Your task to perform on an android device: toggle airplane mode Image 0: 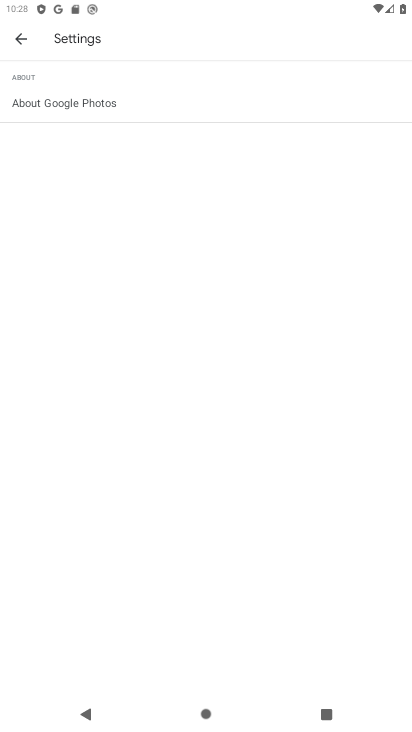
Step 0: press home button
Your task to perform on an android device: toggle airplane mode Image 1: 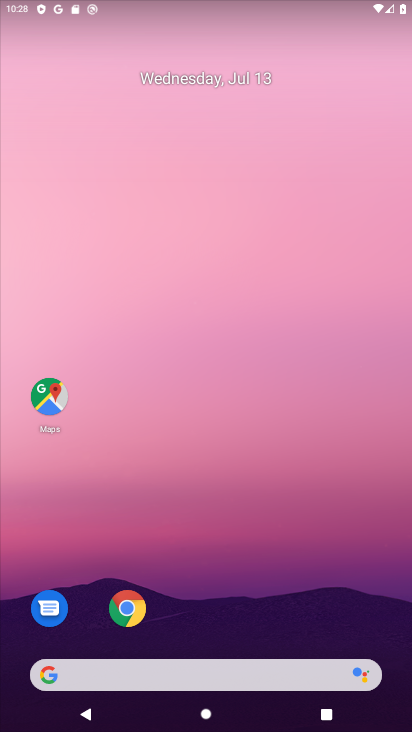
Step 1: drag from (271, 617) to (276, 166)
Your task to perform on an android device: toggle airplane mode Image 2: 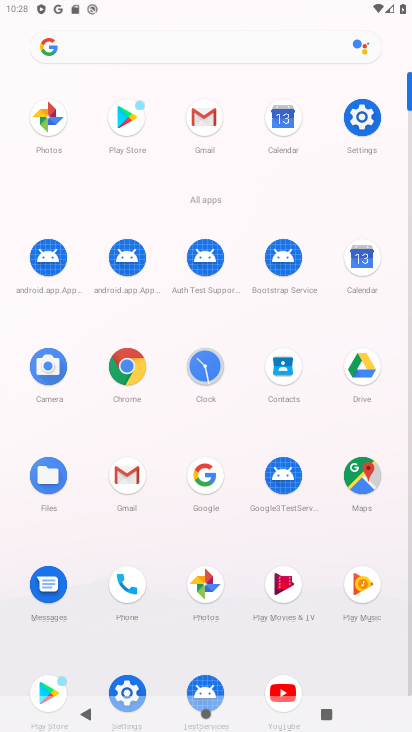
Step 2: click (364, 121)
Your task to perform on an android device: toggle airplane mode Image 3: 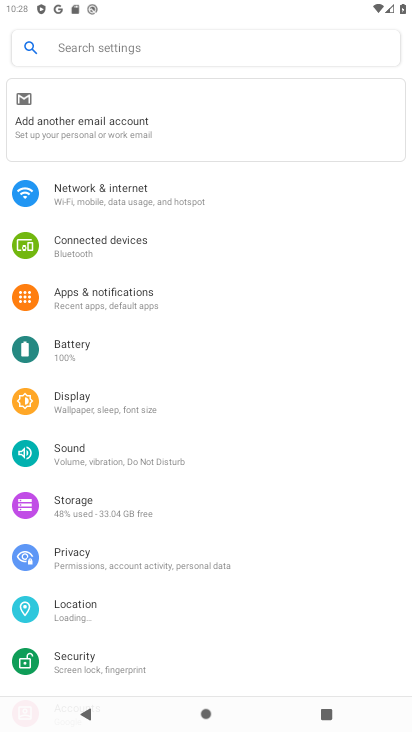
Step 3: click (159, 205)
Your task to perform on an android device: toggle airplane mode Image 4: 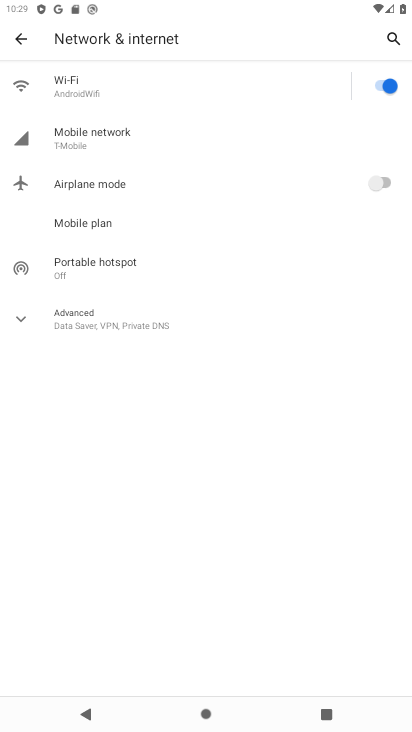
Step 4: click (390, 192)
Your task to perform on an android device: toggle airplane mode Image 5: 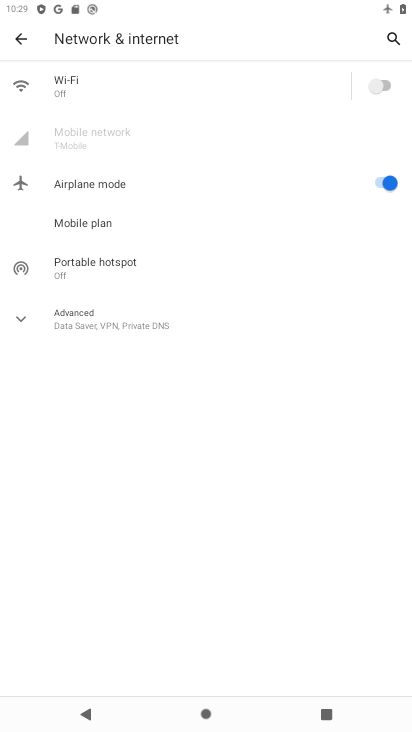
Step 5: task complete